Your task to perform on an android device: Go to notification settings Image 0: 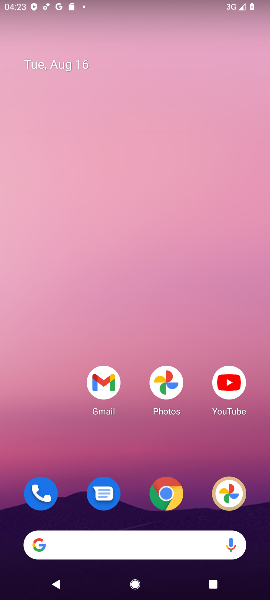
Step 0: drag from (70, 437) to (75, 98)
Your task to perform on an android device: Go to notification settings Image 1: 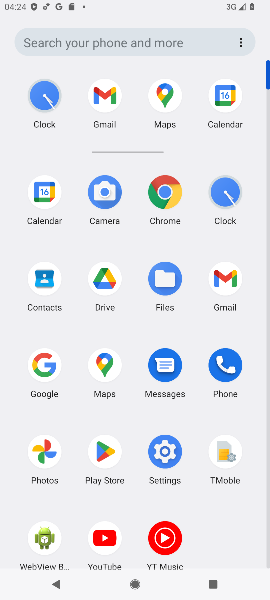
Step 1: click (166, 453)
Your task to perform on an android device: Go to notification settings Image 2: 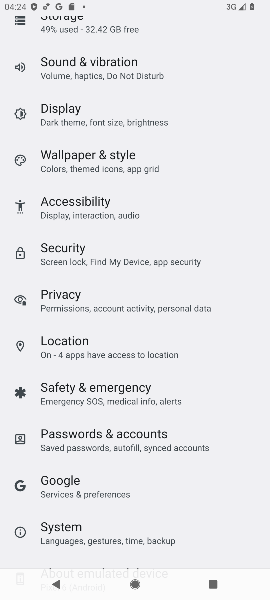
Step 2: drag from (233, 221) to (236, 315)
Your task to perform on an android device: Go to notification settings Image 3: 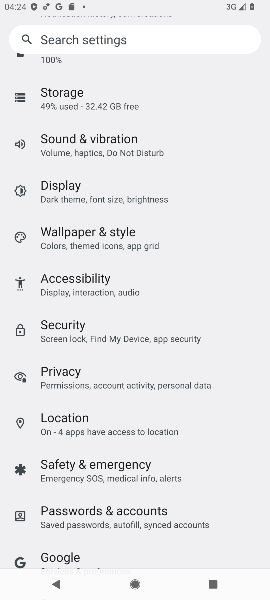
Step 3: drag from (229, 133) to (232, 266)
Your task to perform on an android device: Go to notification settings Image 4: 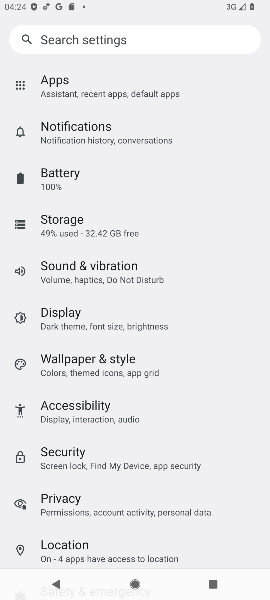
Step 4: drag from (229, 95) to (211, 228)
Your task to perform on an android device: Go to notification settings Image 5: 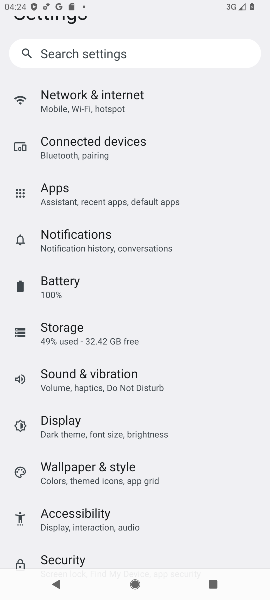
Step 5: drag from (222, 100) to (224, 275)
Your task to perform on an android device: Go to notification settings Image 6: 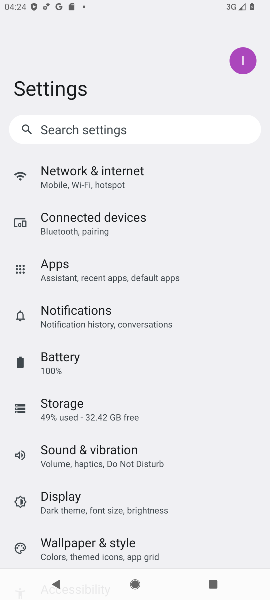
Step 6: click (179, 306)
Your task to perform on an android device: Go to notification settings Image 7: 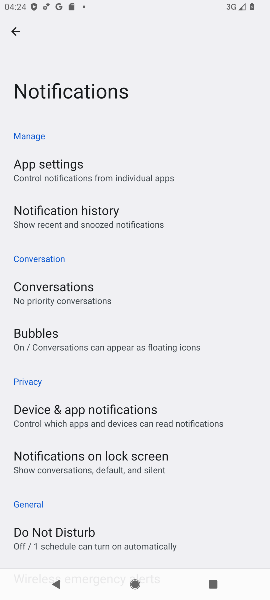
Step 7: task complete